Your task to perform on an android device: Open display settings Image 0: 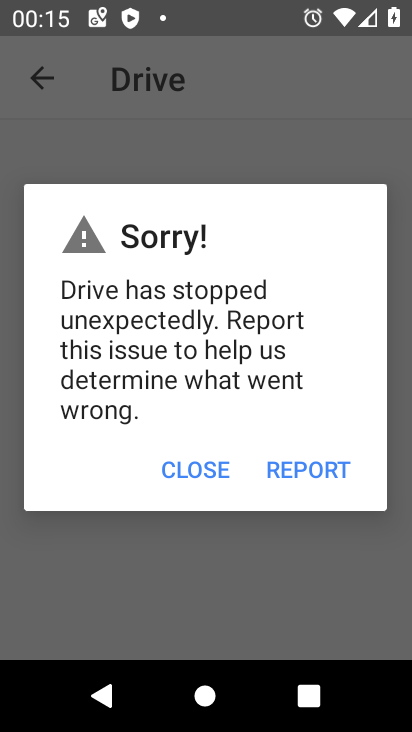
Step 0: press home button
Your task to perform on an android device: Open display settings Image 1: 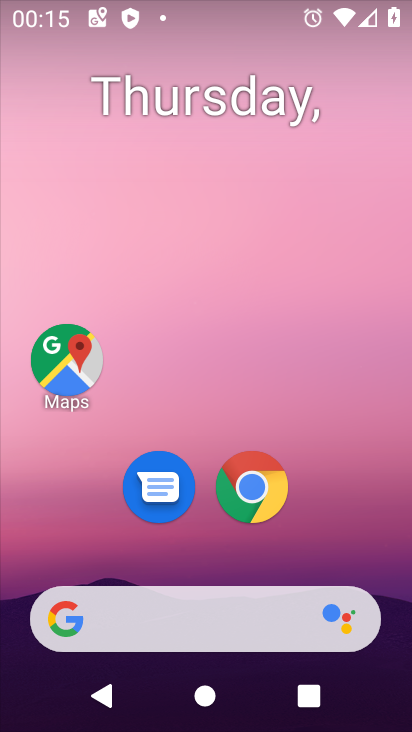
Step 1: drag from (344, 567) to (329, 1)
Your task to perform on an android device: Open display settings Image 2: 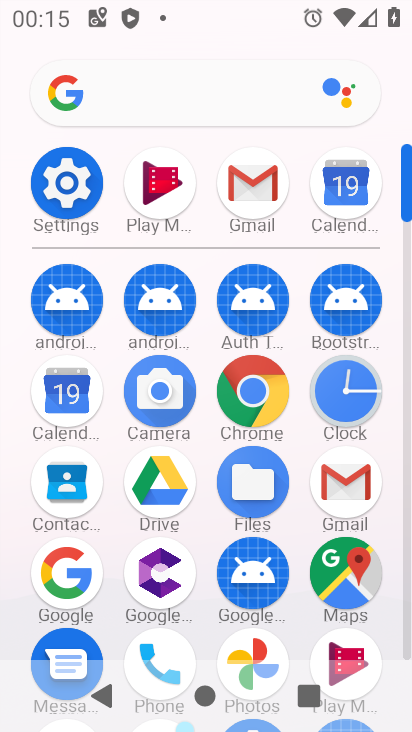
Step 2: click (75, 185)
Your task to perform on an android device: Open display settings Image 3: 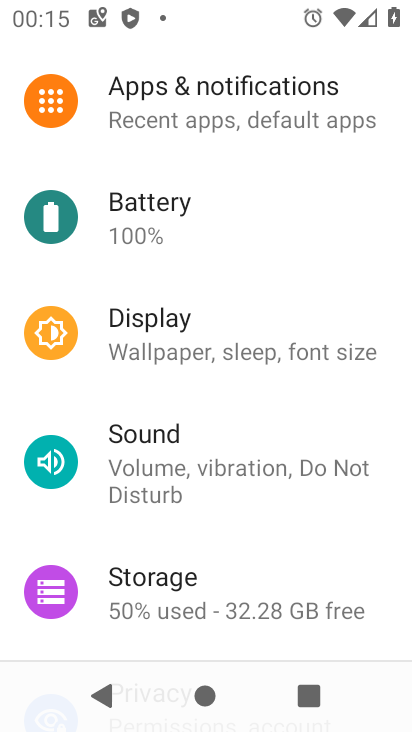
Step 3: click (154, 347)
Your task to perform on an android device: Open display settings Image 4: 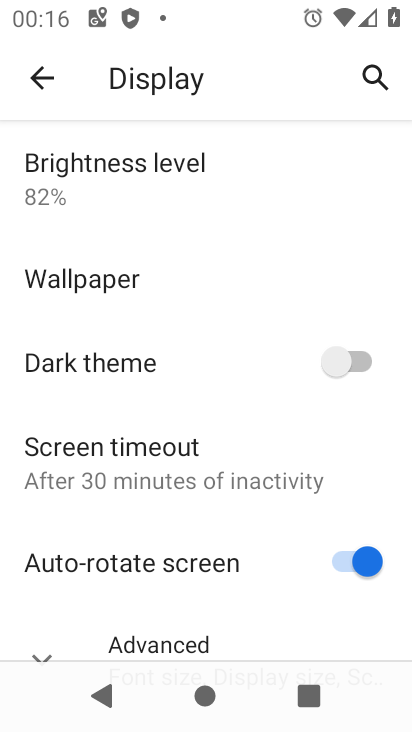
Step 4: task complete